Your task to perform on an android device: turn off smart reply in the gmail app Image 0: 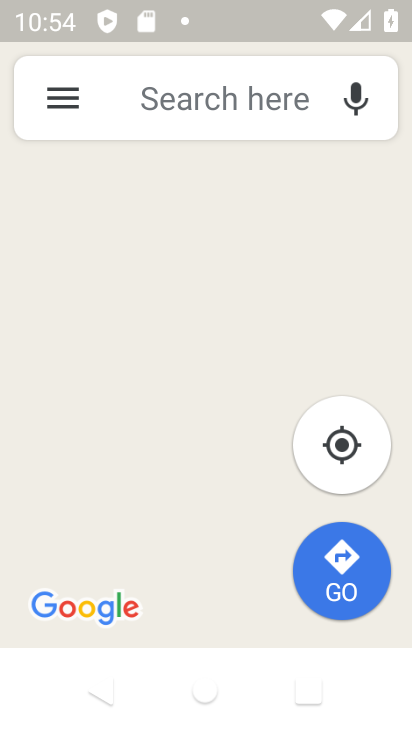
Step 0: press home button
Your task to perform on an android device: turn off smart reply in the gmail app Image 1: 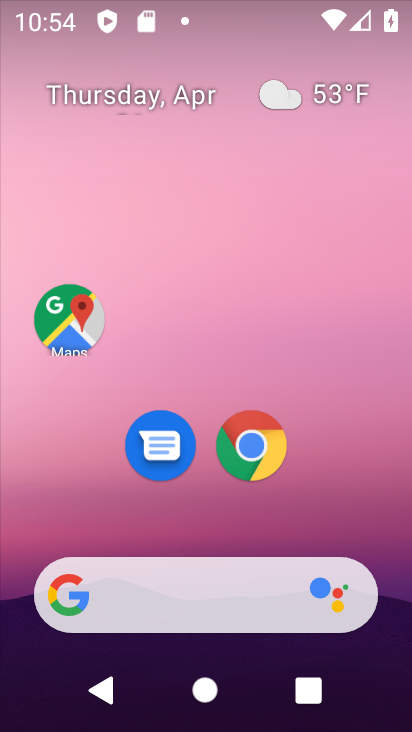
Step 1: drag from (149, 582) to (280, 142)
Your task to perform on an android device: turn off smart reply in the gmail app Image 2: 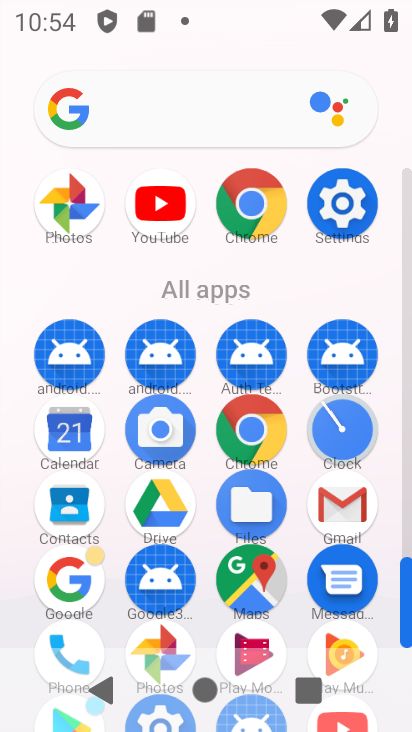
Step 2: click (347, 515)
Your task to perform on an android device: turn off smart reply in the gmail app Image 3: 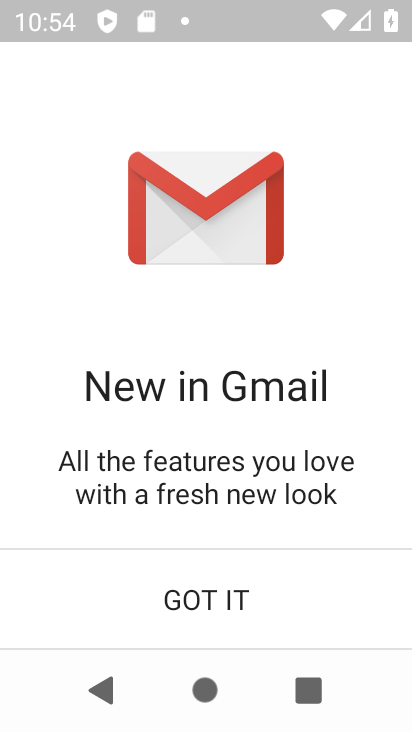
Step 3: click (204, 603)
Your task to perform on an android device: turn off smart reply in the gmail app Image 4: 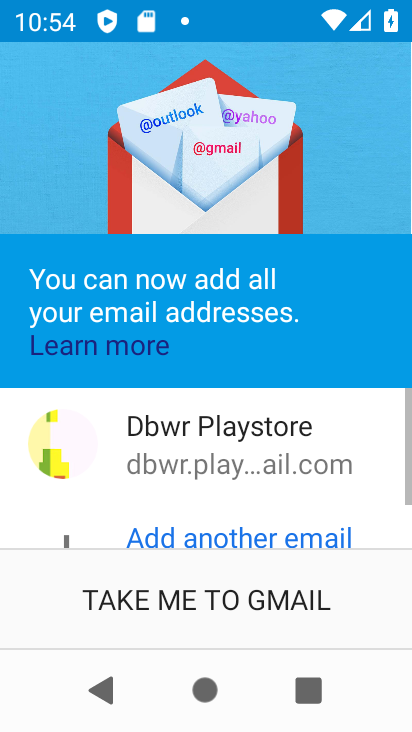
Step 4: click (204, 600)
Your task to perform on an android device: turn off smart reply in the gmail app Image 5: 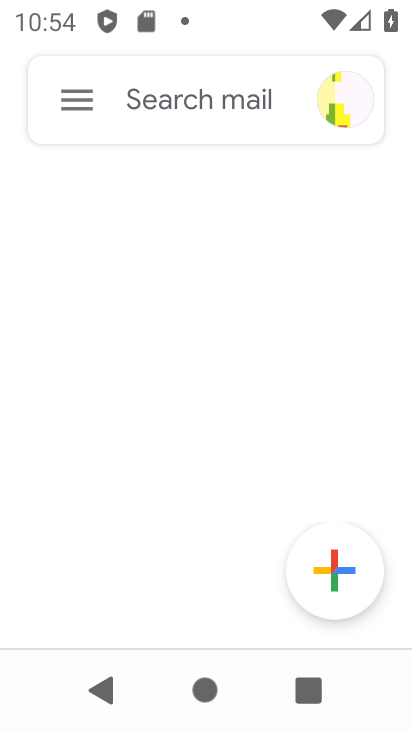
Step 5: click (82, 112)
Your task to perform on an android device: turn off smart reply in the gmail app Image 6: 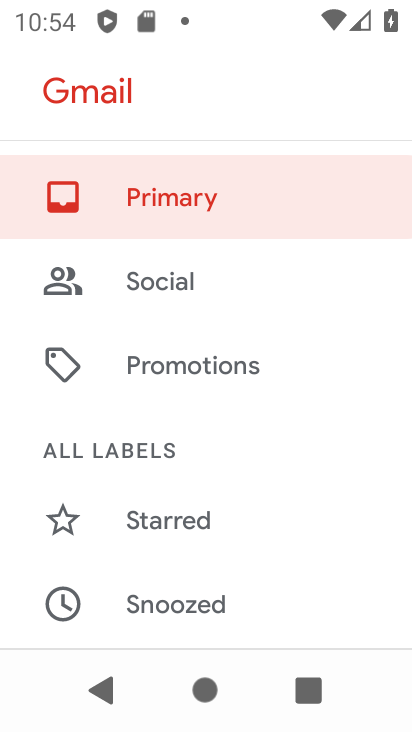
Step 6: drag from (283, 612) to (325, 229)
Your task to perform on an android device: turn off smart reply in the gmail app Image 7: 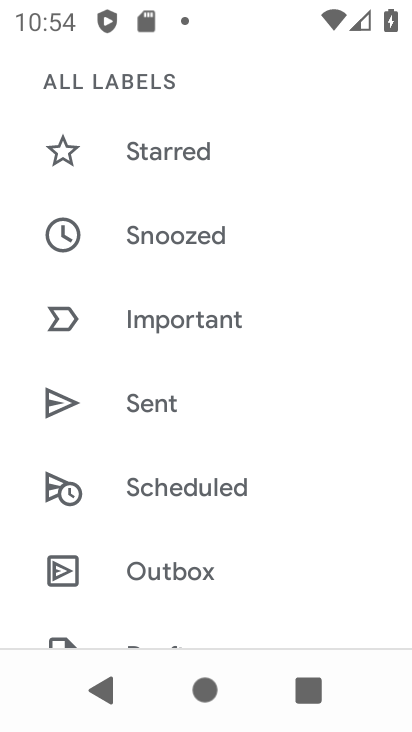
Step 7: drag from (243, 578) to (288, 177)
Your task to perform on an android device: turn off smart reply in the gmail app Image 8: 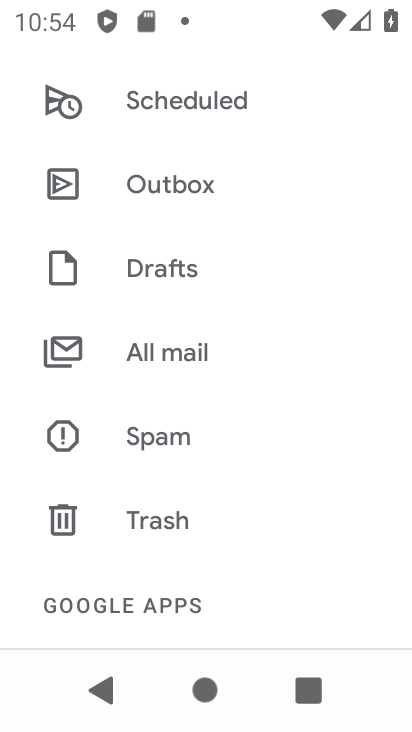
Step 8: drag from (278, 531) to (319, 220)
Your task to perform on an android device: turn off smart reply in the gmail app Image 9: 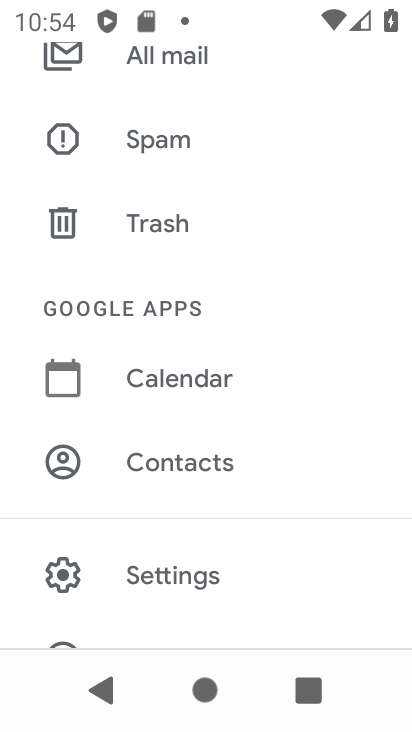
Step 9: click (185, 584)
Your task to perform on an android device: turn off smart reply in the gmail app Image 10: 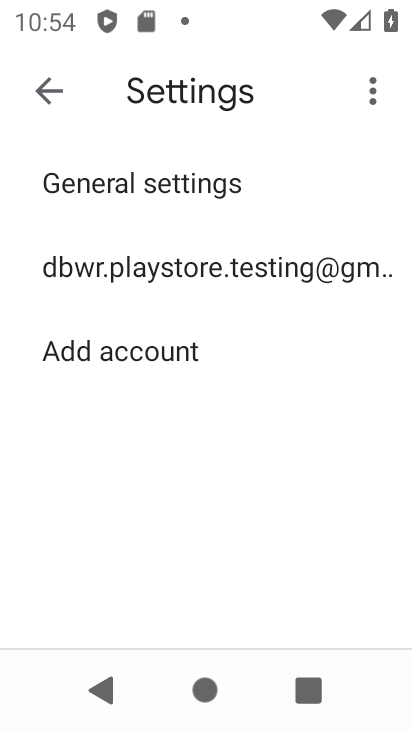
Step 10: click (228, 271)
Your task to perform on an android device: turn off smart reply in the gmail app Image 11: 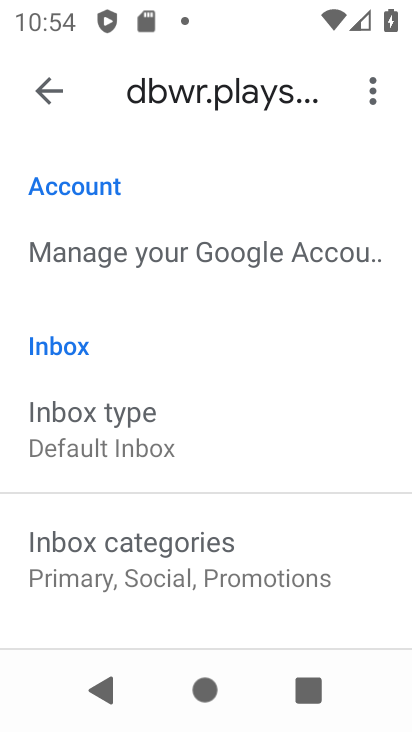
Step 11: drag from (206, 589) to (339, 163)
Your task to perform on an android device: turn off smart reply in the gmail app Image 12: 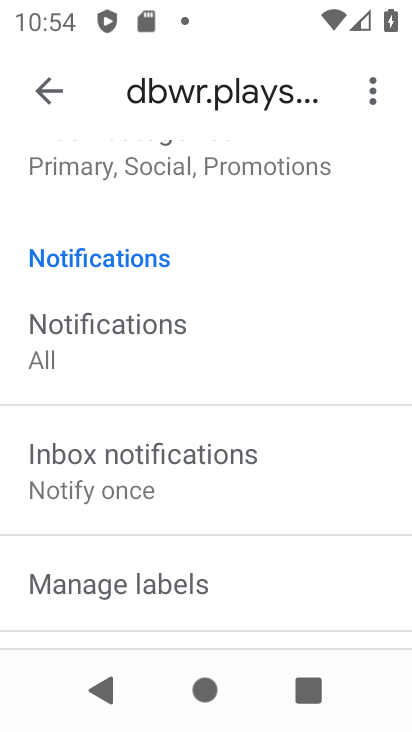
Step 12: drag from (161, 564) to (318, 74)
Your task to perform on an android device: turn off smart reply in the gmail app Image 13: 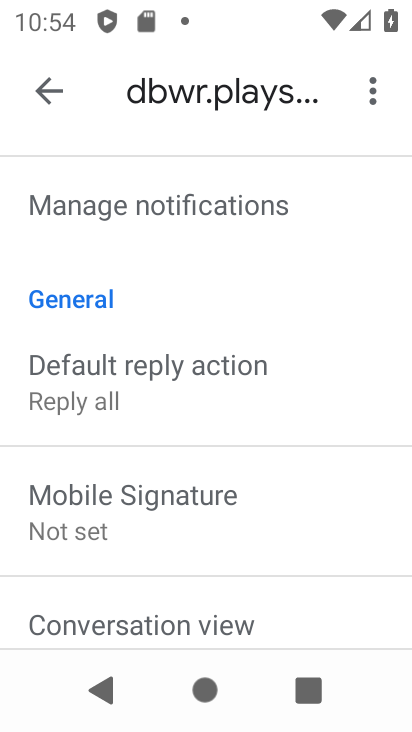
Step 13: drag from (281, 539) to (411, 214)
Your task to perform on an android device: turn off smart reply in the gmail app Image 14: 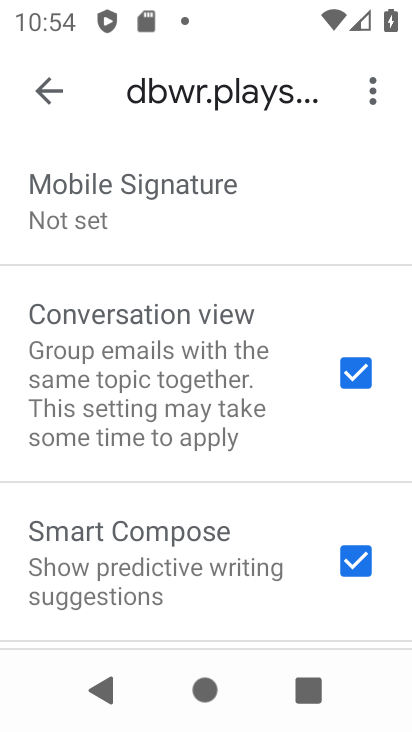
Step 14: drag from (285, 412) to (350, 250)
Your task to perform on an android device: turn off smart reply in the gmail app Image 15: 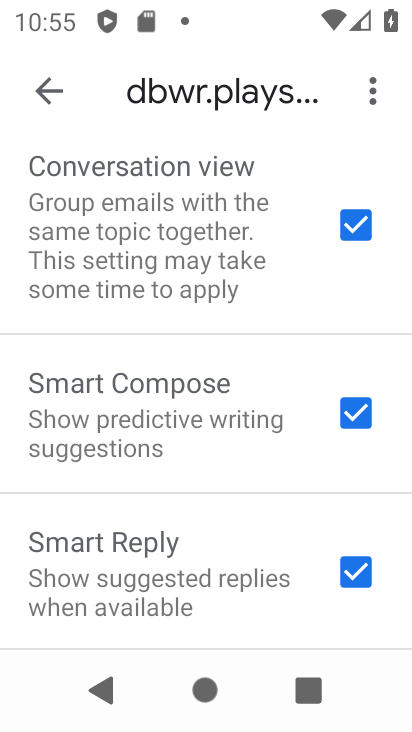
Step 15: click (366, 569)
Your task to perform on an android device: turn off smart reply in the gmail app Image 16: 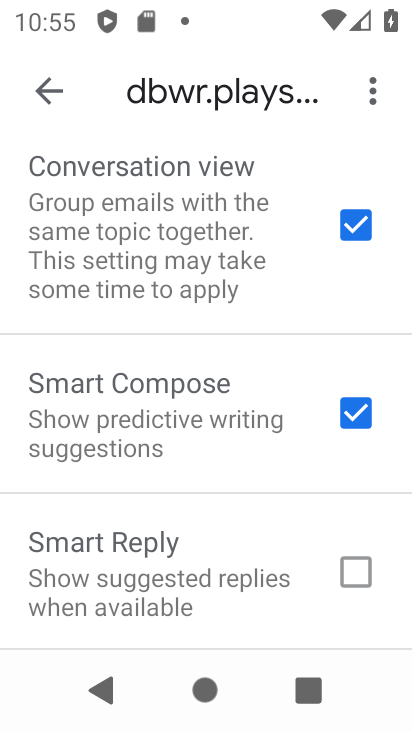
Step 16: task complete